Your task to perform on an android device: Clear all items from cart on ebay.com. Image 0: 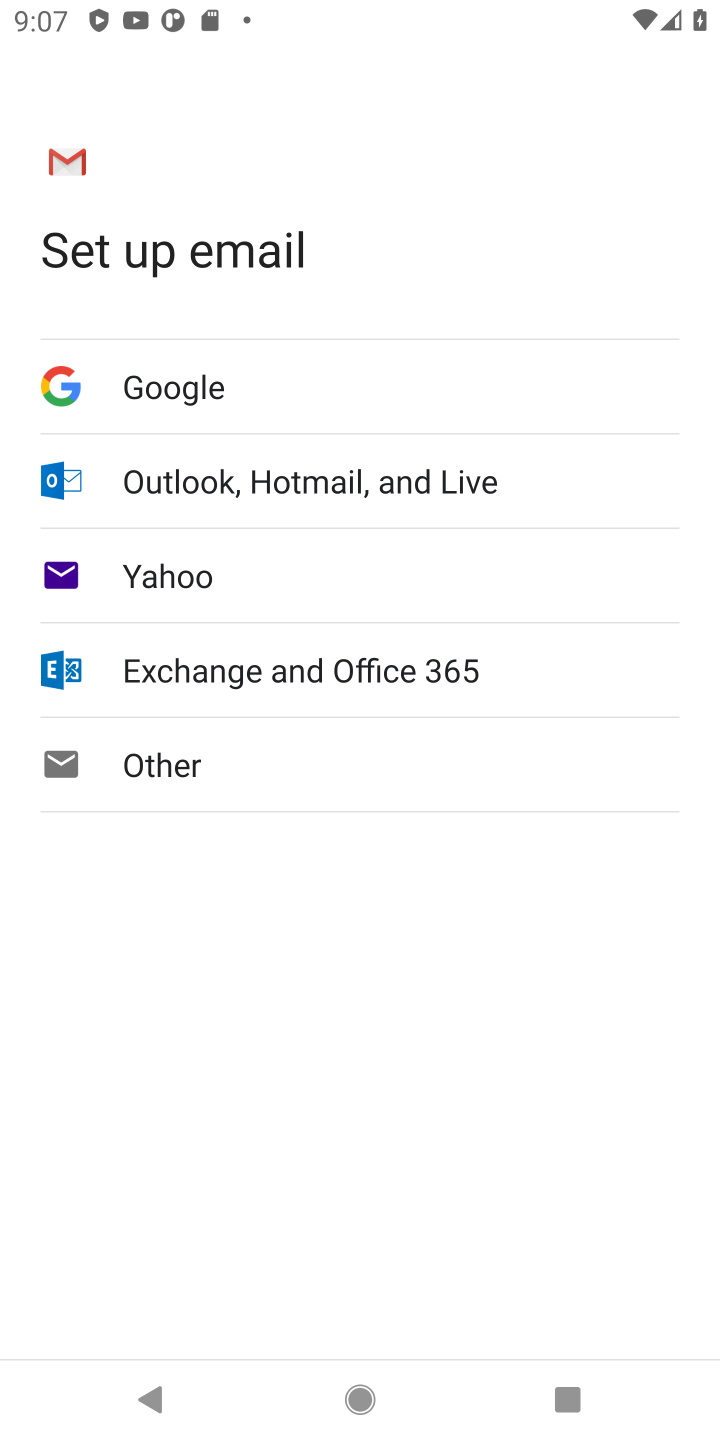
Step 0: press home button
Your task to perform on an android device: Clear all items from cart on ebay.com. Image 1: 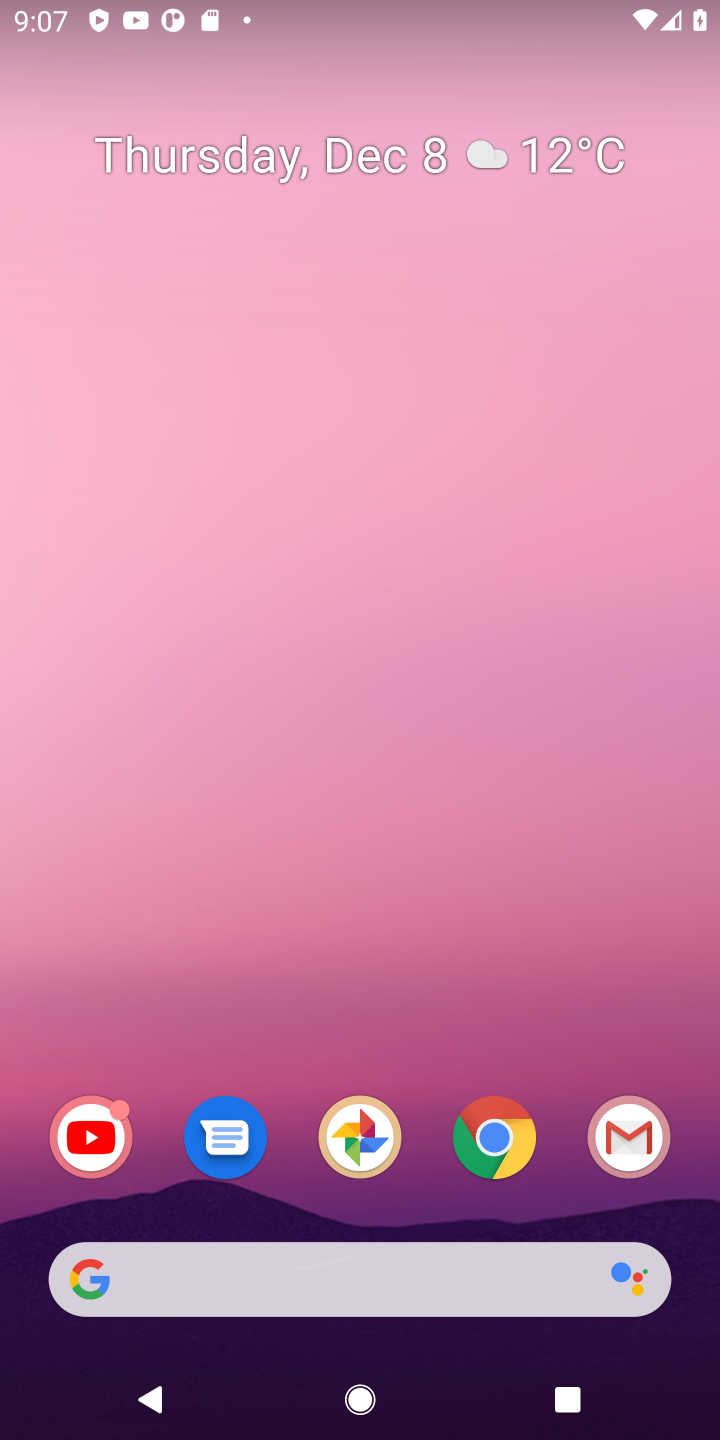
Step 1: click (520, 1159)
Your task to perform on an android device: Clear all items from cart on ebay.com. Image 2: 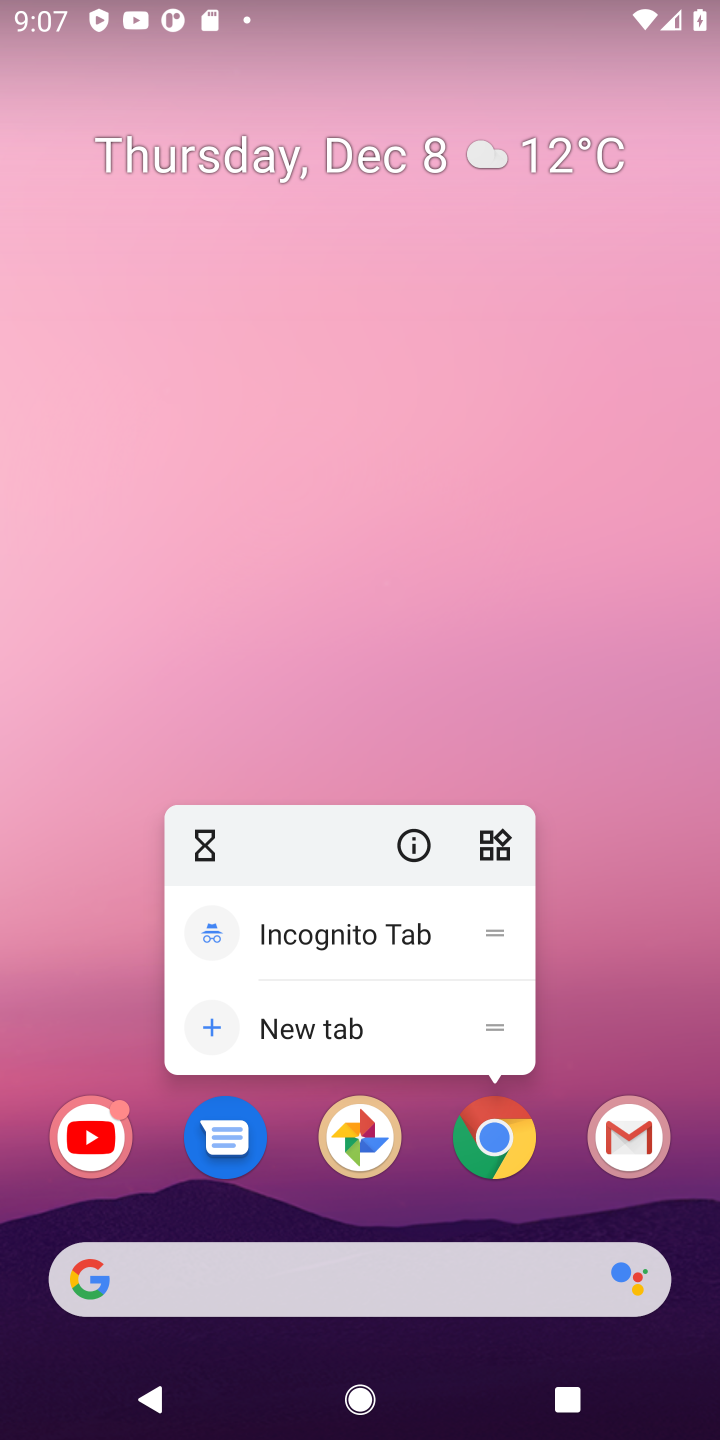
Step 2: click (498, 1138)
Your task to perform on an android device: Clear all items from cart on ebay.com. Image 3: 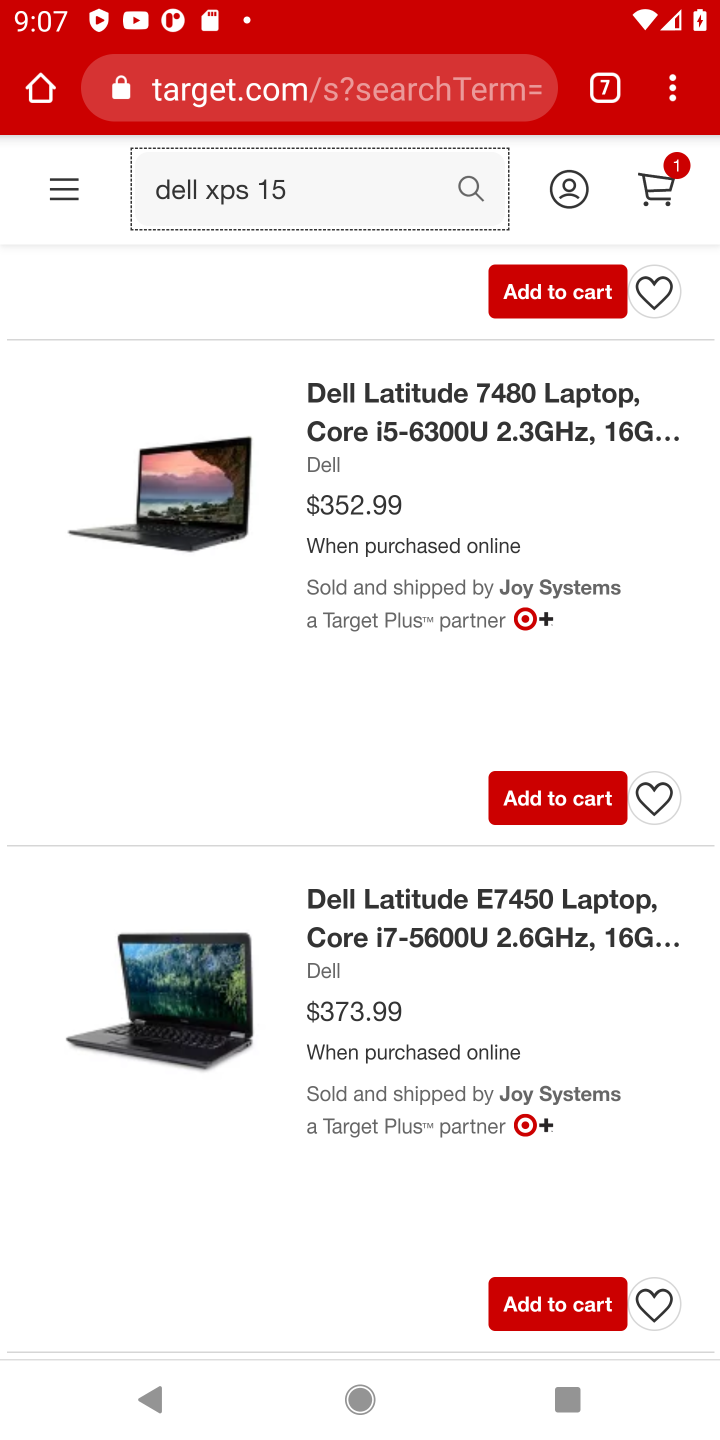
Step 3: click (604, 92)
Your task to perform on an android device: Clear all items from cart on ebay.com. Image 4: 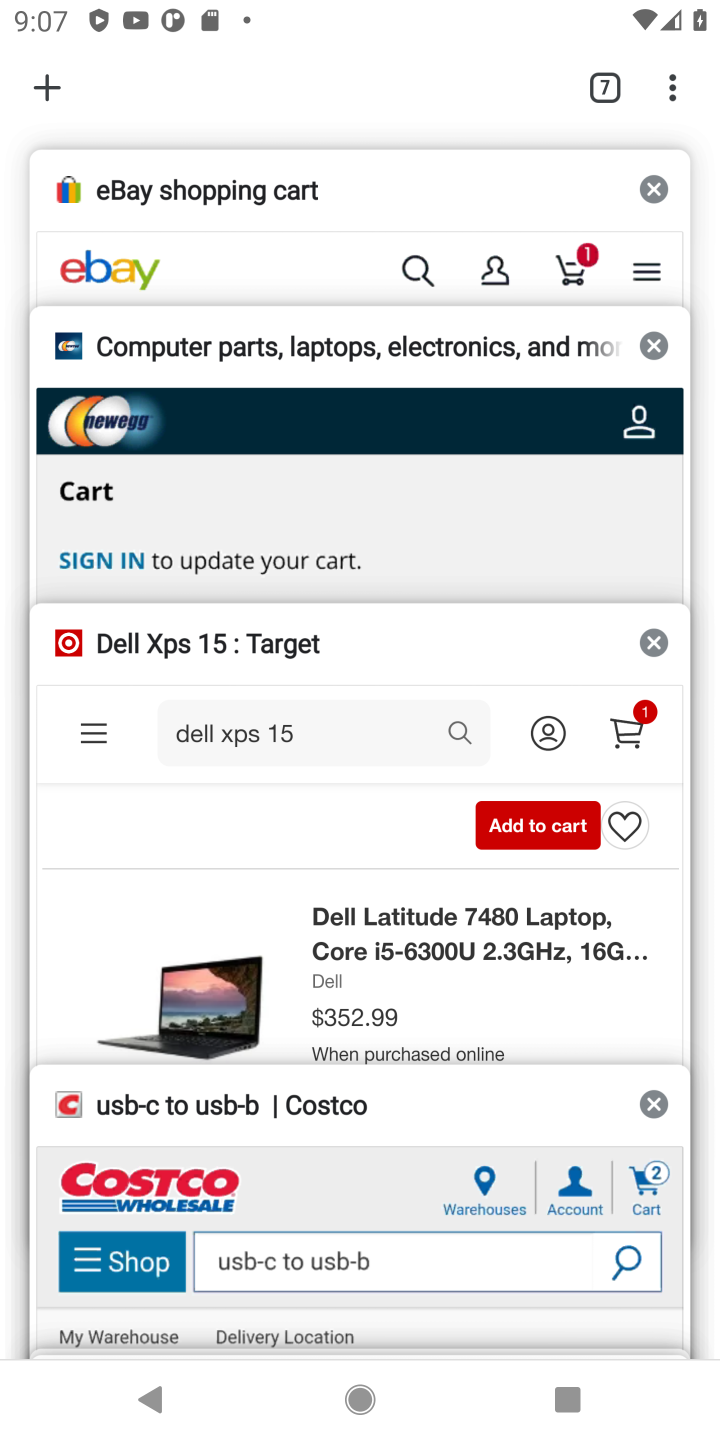
Step 4: click (247, 244)
Your task to perform on an android device: Clear all items from cart on ebay.com. Image 5: 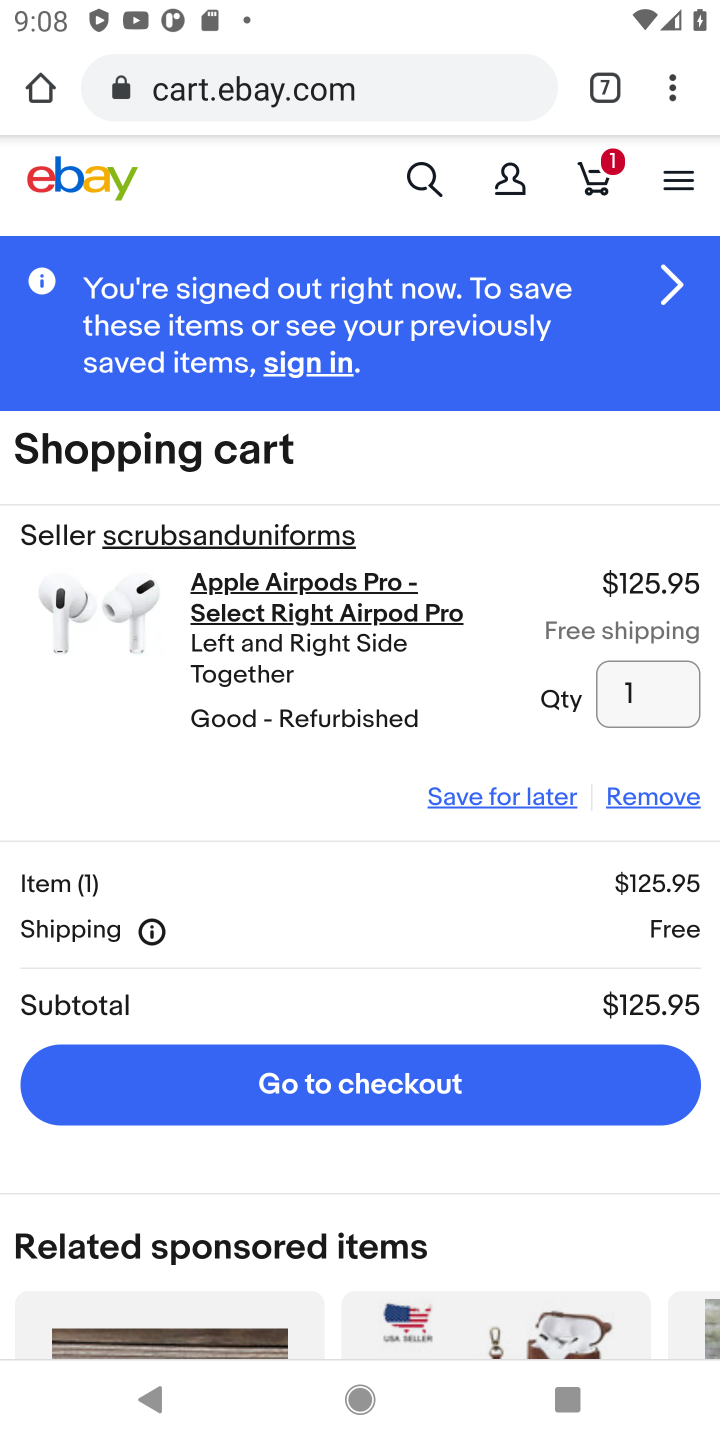
Step 5: click (646, 784)
Your task to perform on an android device: Clear all items from cart on ebay.com. Image 6: 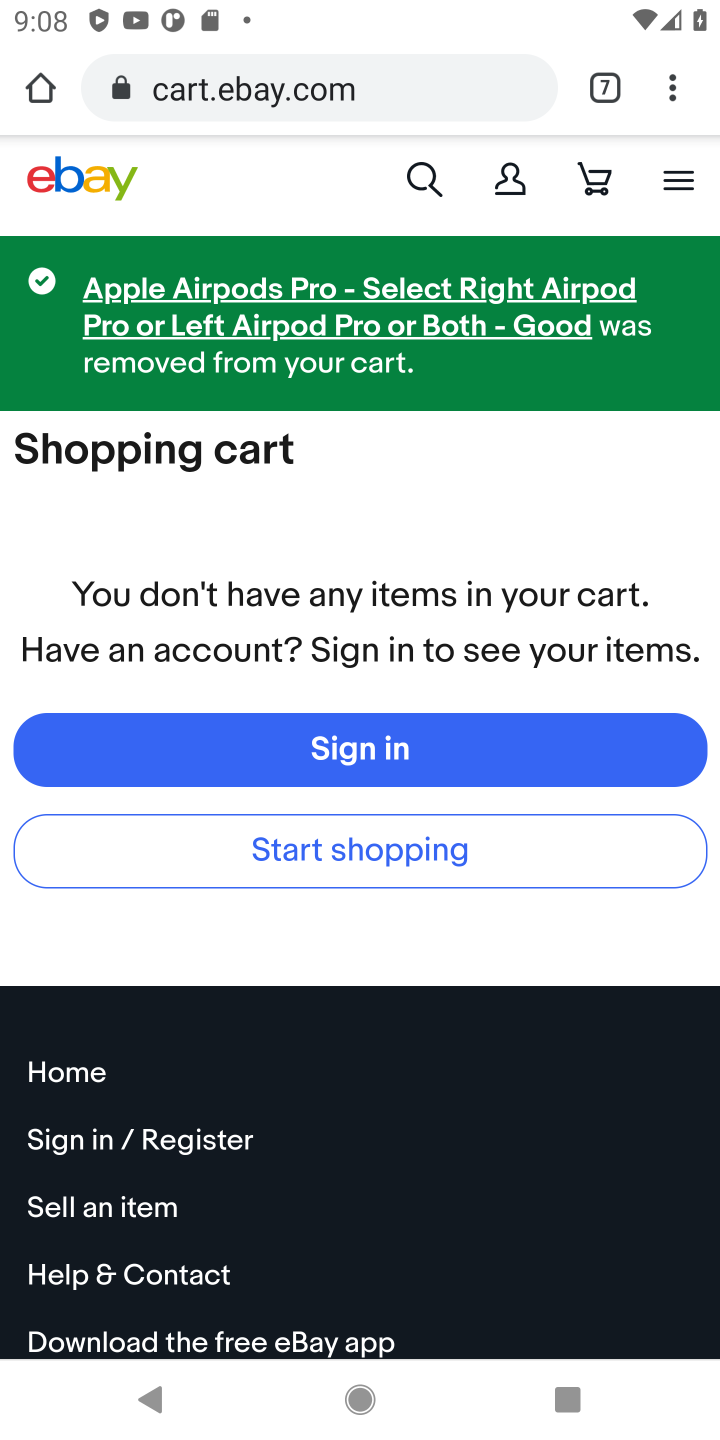
Step 6: task complete